Your task to perform on an android device: turn off airplane mode Image 0: 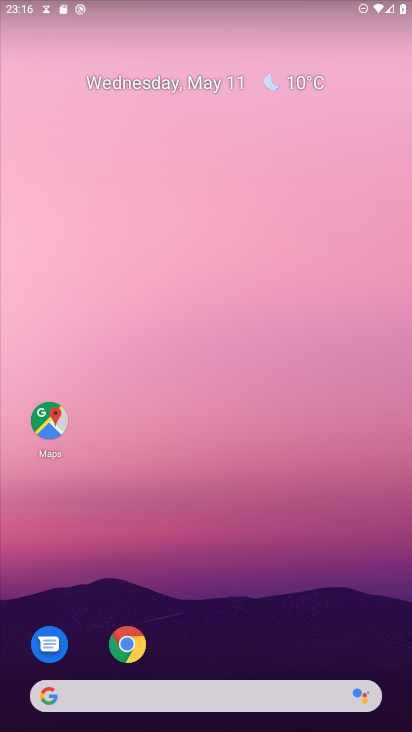
Step 0: click (395, 635)
Your task to perform on an android device: turn off airplane mode Image 1: 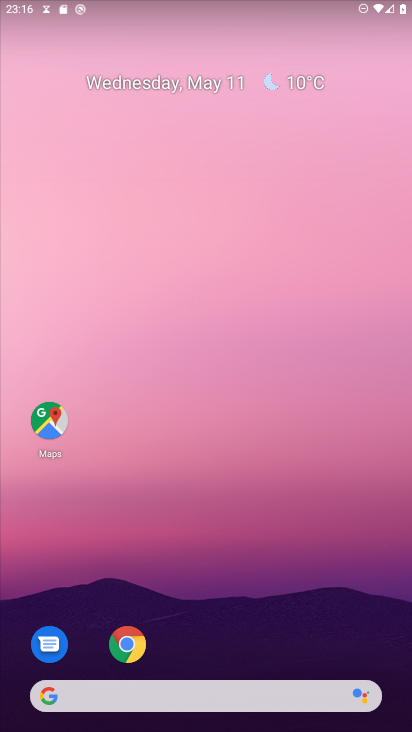
Step 1: drag from (395, 635) to (100, 1)
Your task to perform on an android device: turn off airplane mode Image 2: 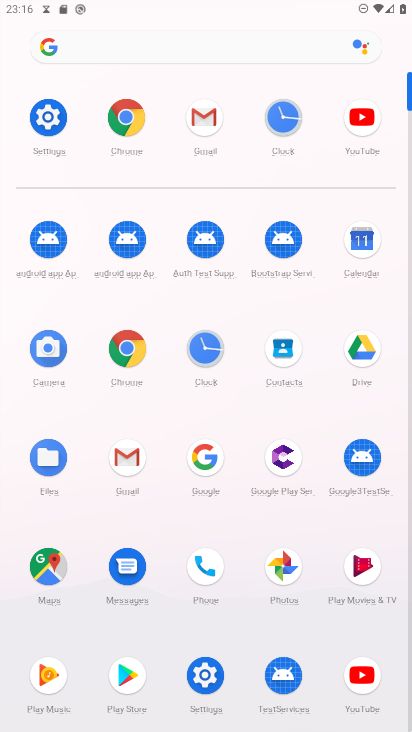
Step 2: click (43, 124)
Your task to perform on an android device: turn off airplane mode Image 3: 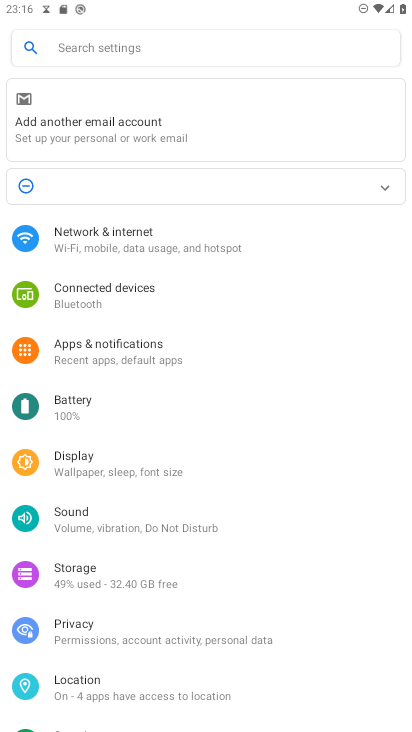
Step 3: click (76, 244)
Your task to perform on an android device: turn off airplane mode Image 4: 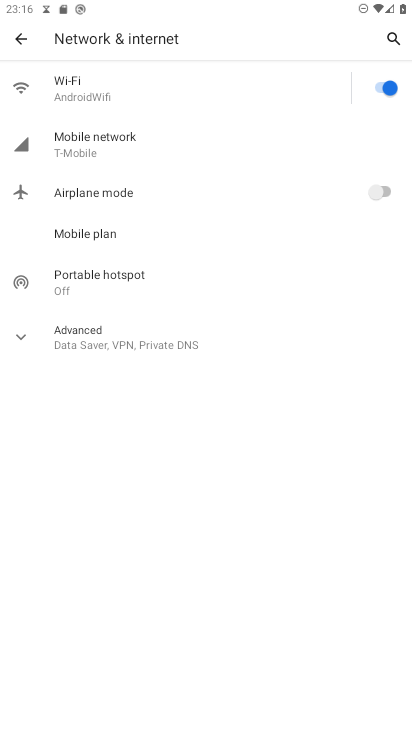
Step 4: task complete